Your task to perform on an android device: manage bookmarks in the chrome app Image 0: 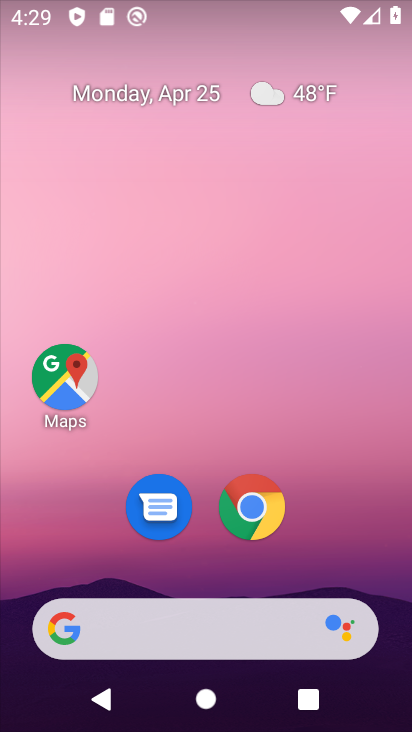
Step 0: drag from (162, 566) to (275, 49)
Your task to perform on an android device: manage bookmarks in the chrome app Image 1: 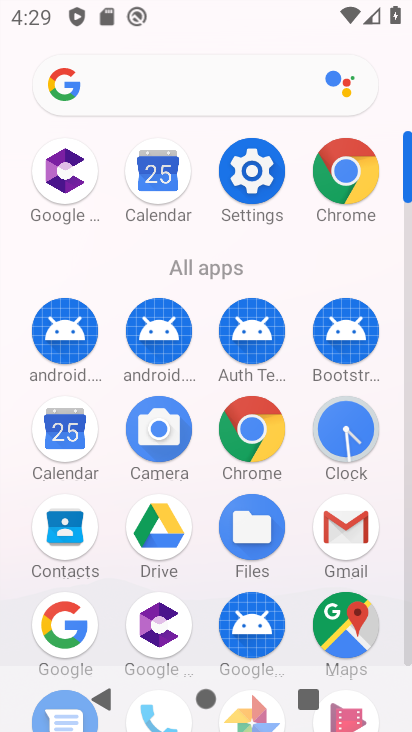
Step 1: click (257, 425)
Your task to perform on an android device: manage bookmarks in the chrome app Image 2: 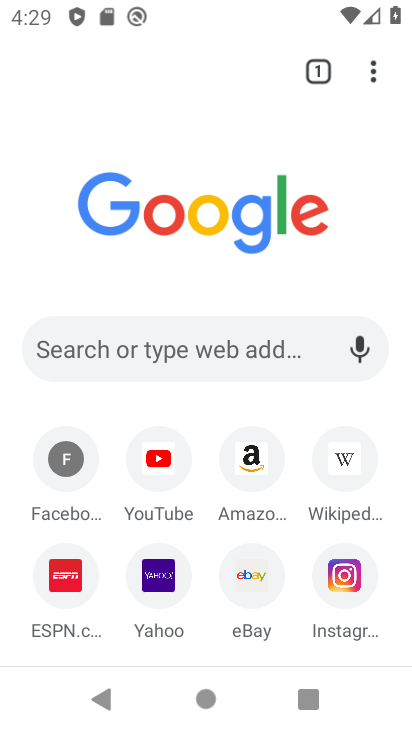
Step 2: click (375, 76)
Your task to perform on an android device: manage bookmarks in the chrome app Image 3: 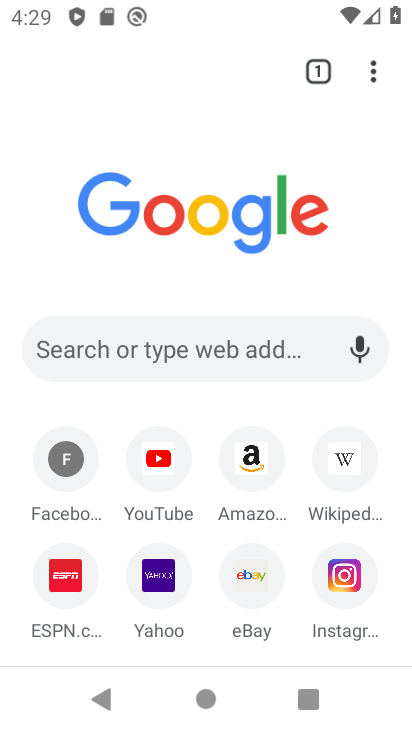
Step 3: task complete